Your task to perform on an android device: create a new album in the google photos Image 0: 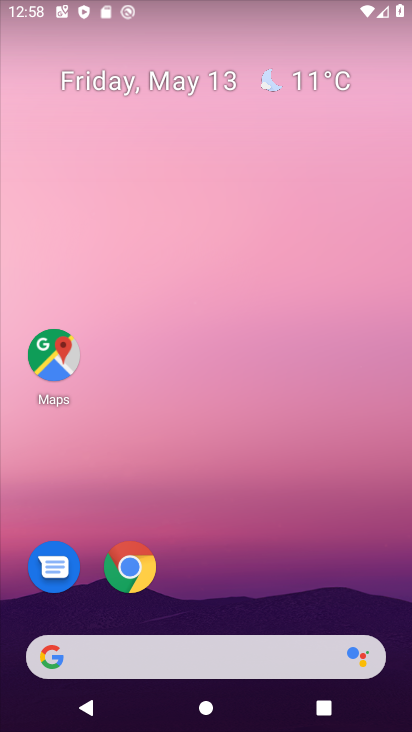
Step 0: click (136, 573)
Your task to perform on an android device: create a new album in the google photos Image 1: 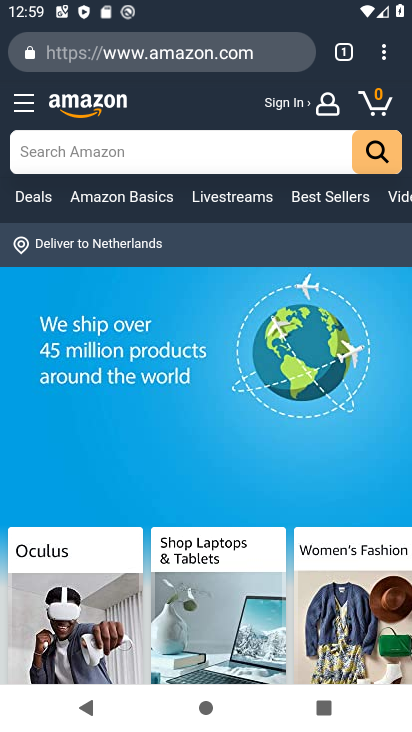
Step 1: press home button
Your task to perform on an android device: create a new album in the google photos Image 2: 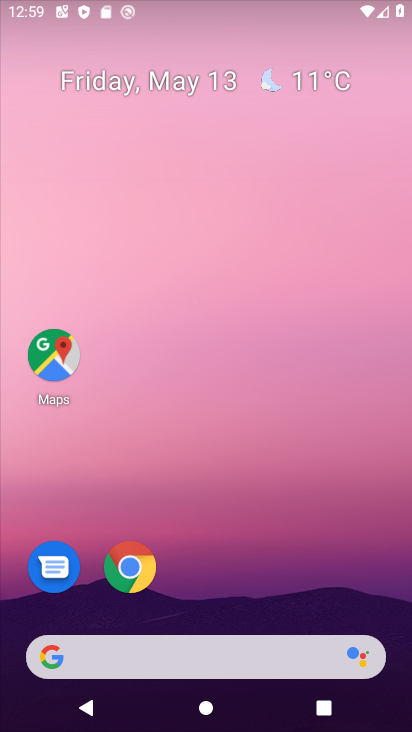
Step 2: drag from (178, 625) to (248, 109)
Your task to perform on an android device: create a new album in the google photos Image 3: 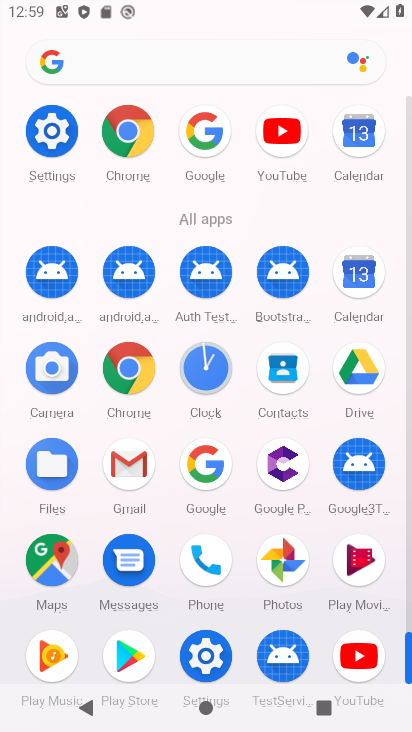
Step 3: click (288, 553)
Your task to perform on an android device: create a new album in the google photos Image 4: 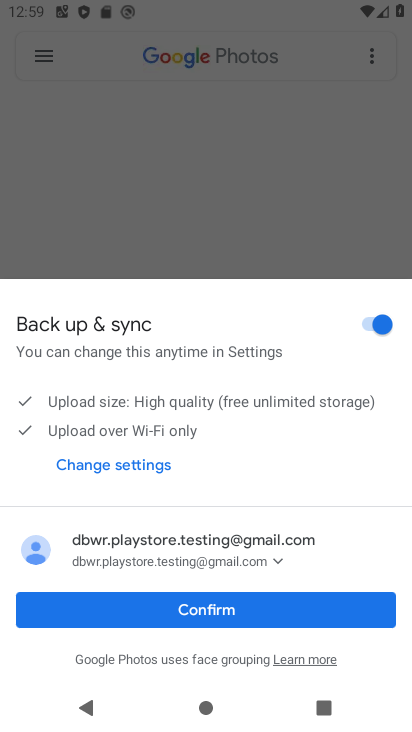
Step 4: click (235, 604)
Your task to perform on an android device: create a new album in the google photos Image 5: 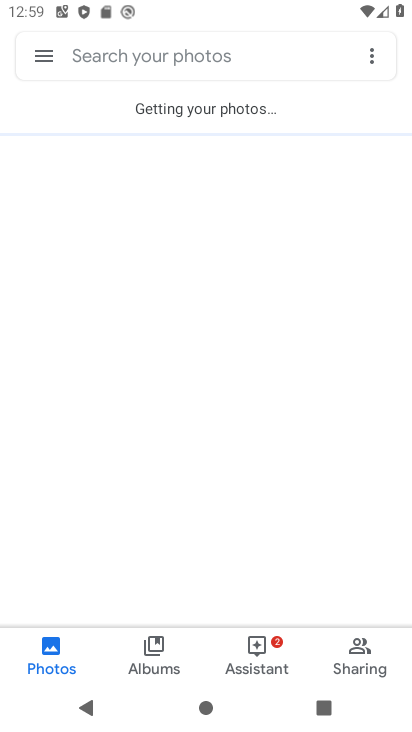
Step 5: click (382, 49)
Your task to perform on an android device: create a new album in the google photos Image 6: 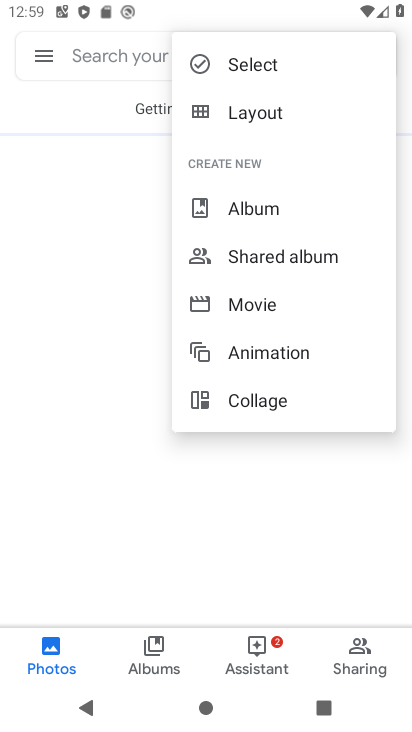
Step 6: click (302, 200)
Your task to perform on an android device: create a new album in the google photos Image 7: 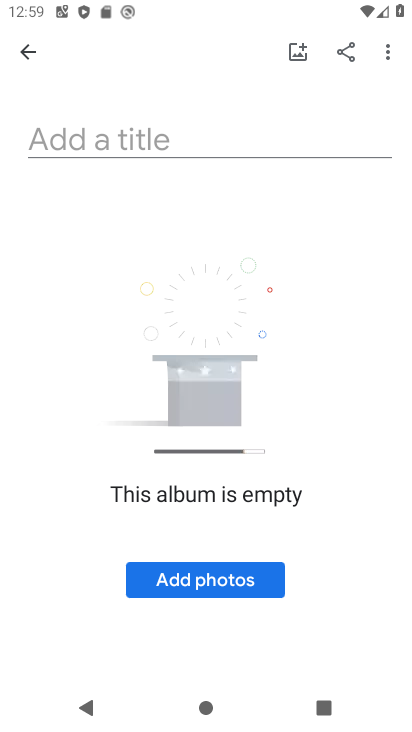
Step 7: click (252, 137)
Your task to perform on an android device: create a new album in the google photos Image 8: 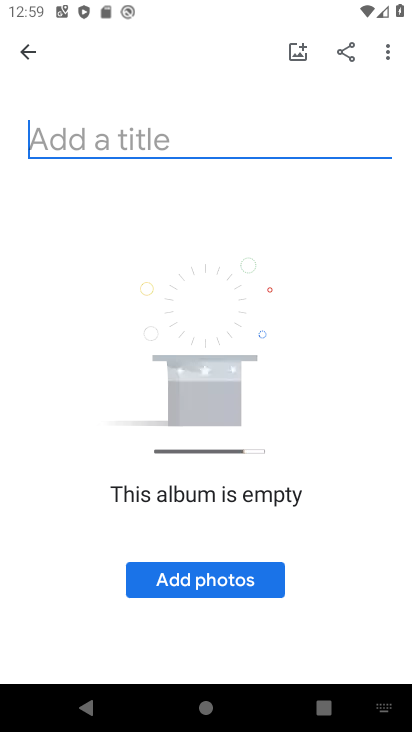
Step 8: type "yyoyooy"
Your task to perform on an android device: create a new album in the google photos Image 9: 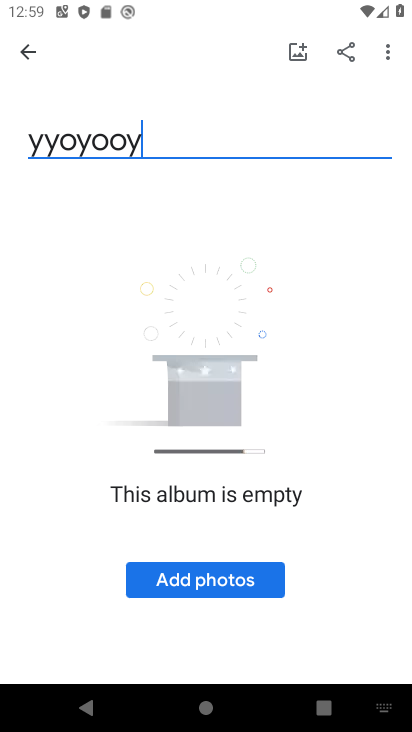
Step 9: click (202, 591)
Your task to perform on an android device: create a new album in the google photos Image 10: 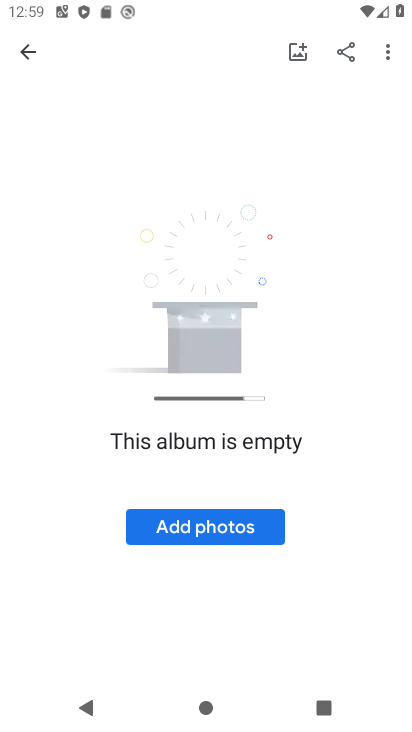
Step 10: click (232, 548)
Your task to perform on an android device: create a new album in the google photos Image 11: 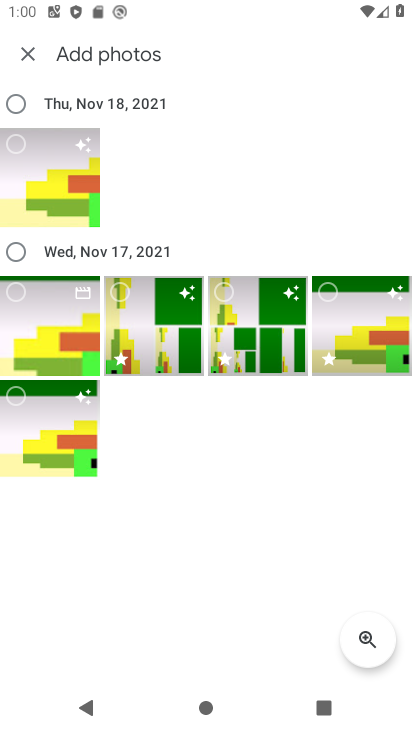
Step 11: click (17, 254)
Your task to perform on an android device: create a new album in the google photos Image 12: 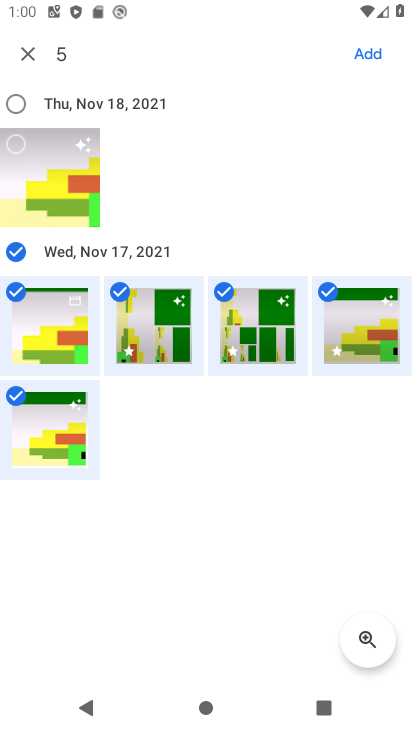
Step 12: click (364, 54)
Your task to perform on an android device: create a new album in the google photos Image 13: 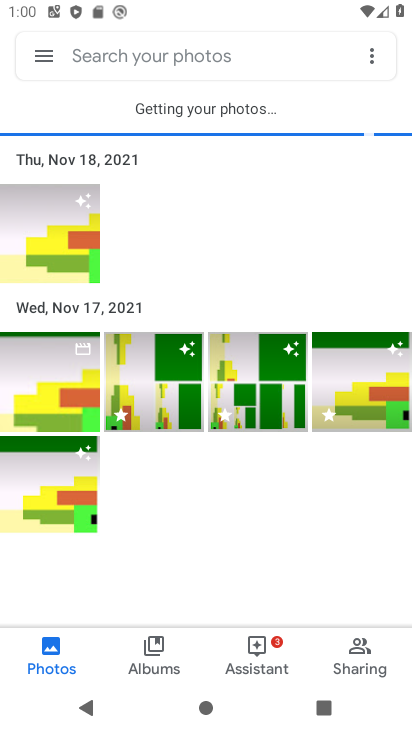
Step 13: click (75, 383)
Your task to perform on an android device: create a new album in the google photos Image 14: 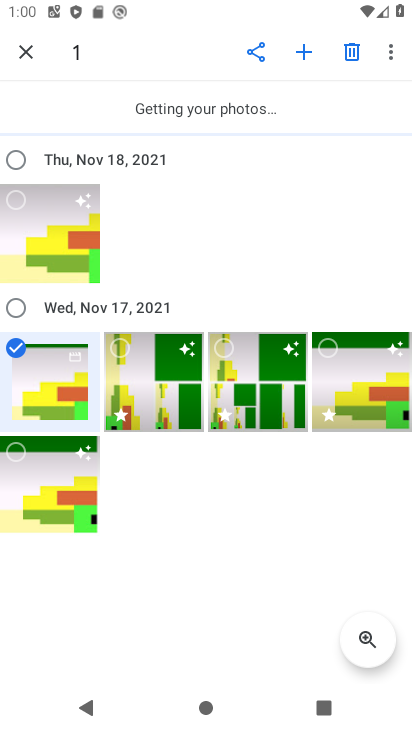
Step 14: click (26, 310)
Your task to perform on an android device: create a new album in the google photos Image 15: 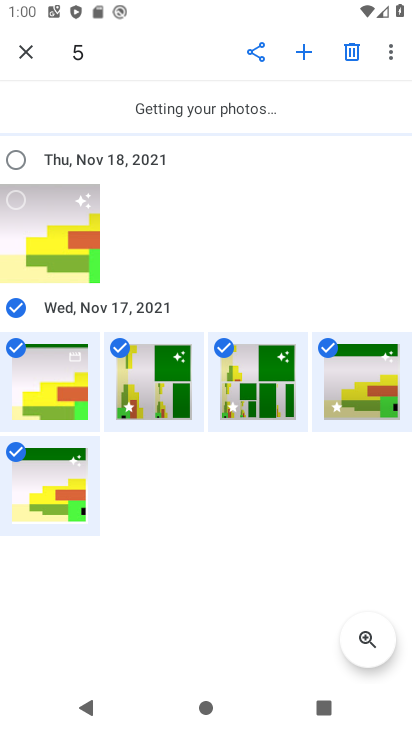
Step 15: click (309, 54)
Your task to perform on an android device: create a new album in the google photos Image 16: 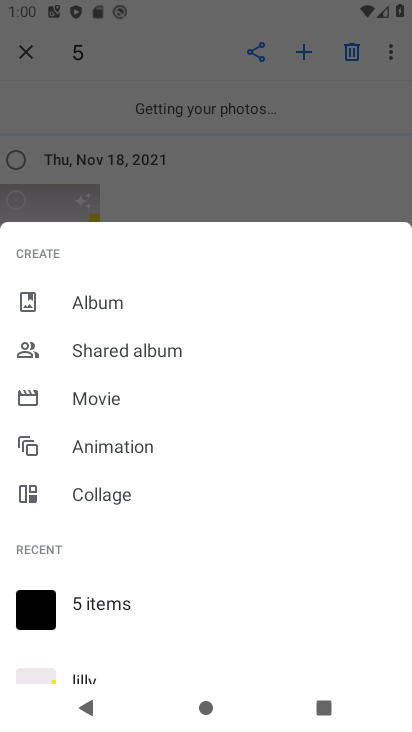
Step 16: click (187, 310)
Your task to perform on an android device: create a new album in the google photos Image 17: 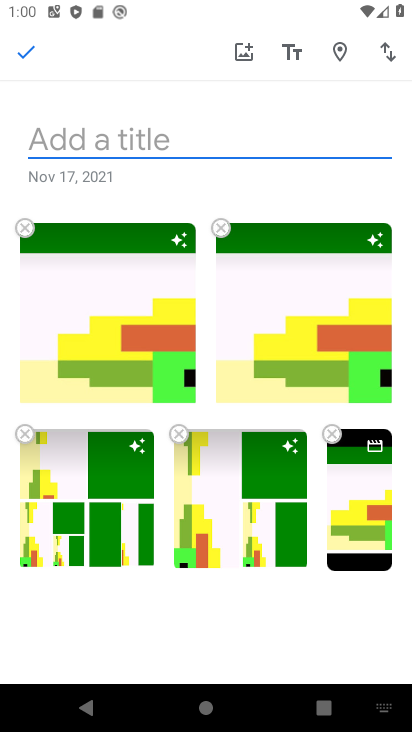
Step 17: click (149, 125)
Your task to perform on an android device: create a new album in the google photos Image 18: 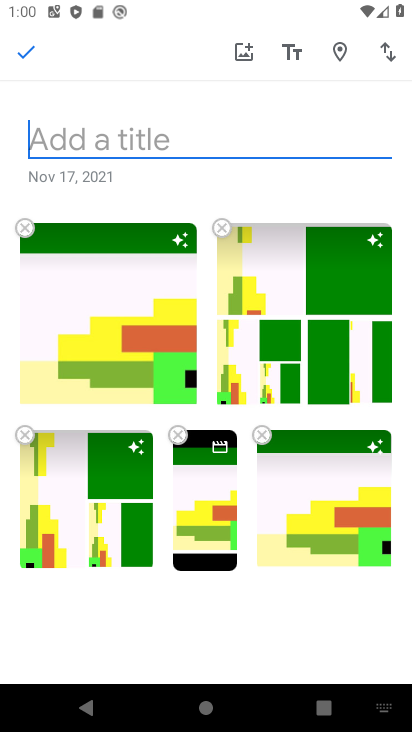
Step 18: type "yyyyyyy"
Your task to perform on an android device: create a new album in the google photos Image 19: 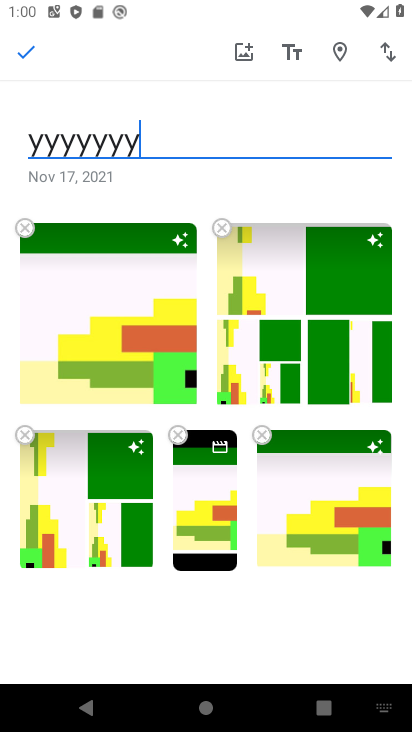
Step 19: click (18, 54)
Your task to perform on an android device: create a new album in the google photos Image 20: 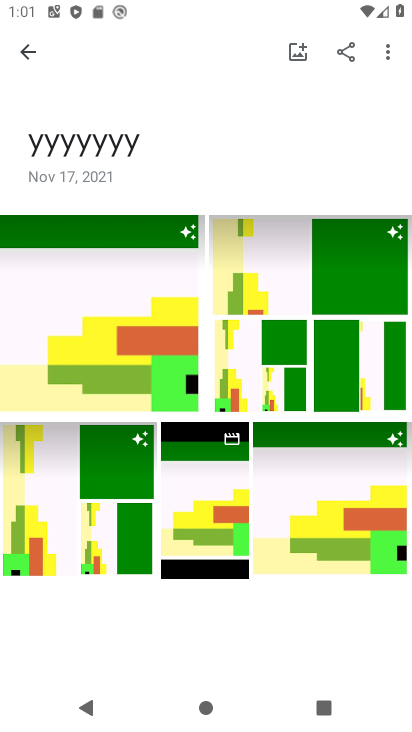
Step 20: task complete